Your task to perform on an android device: turn on translation in the chrome app Image 0: 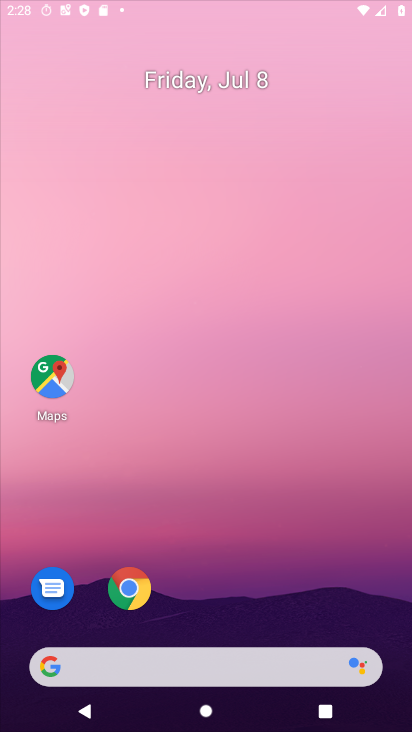
Step 0: press home button
Your task to perform on an android device: turn on translation in the chrome app Image 1: 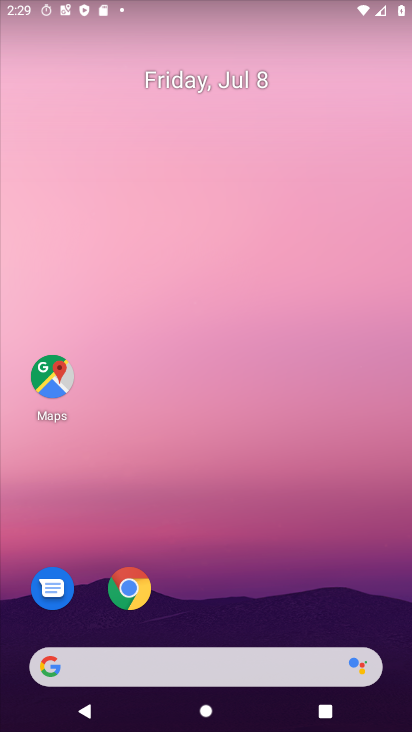
Step 1: drag from (227, 628) to (218, 133)
Your task to perform on an android device: turn on translation in the chrome app Image 2: 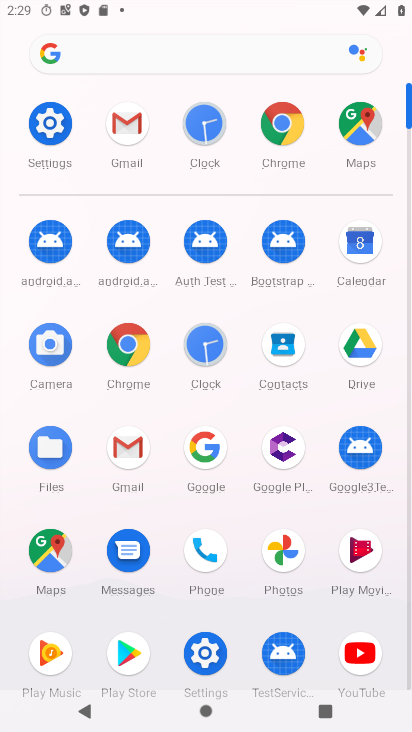
Step 2: click (284, 136)
Your task to perform on an android device: turn on translation in the chrome app Image 3: 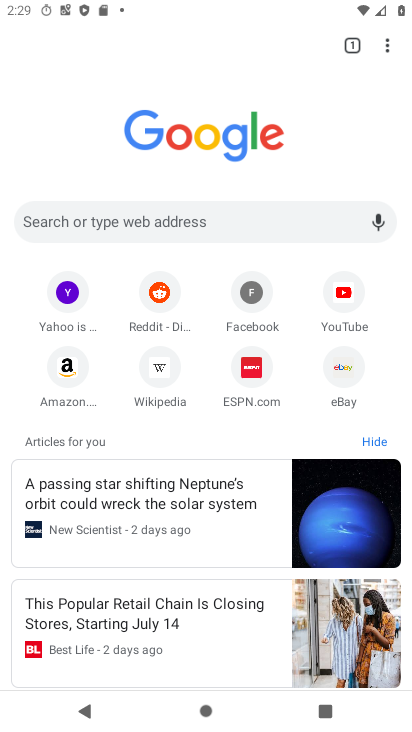
Step 3: drag from (389, 50) to (243, 382)
Your task to perform on an android device: turn on translation in the chrome app Image 4: 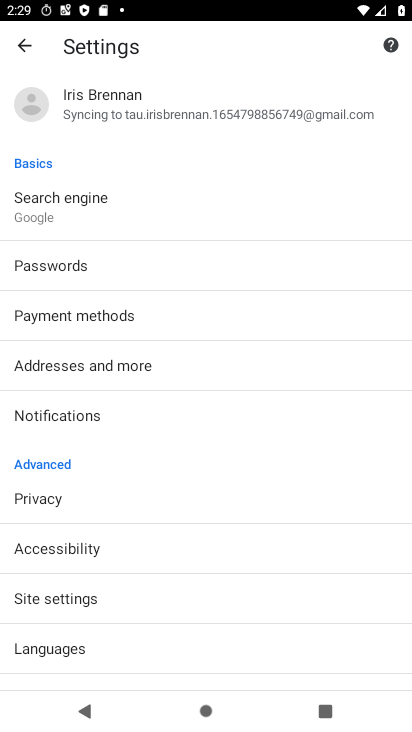
Step 4: click (49, 652)
Your task to perform on an android device: turn on translation in the chrome app Image 5: 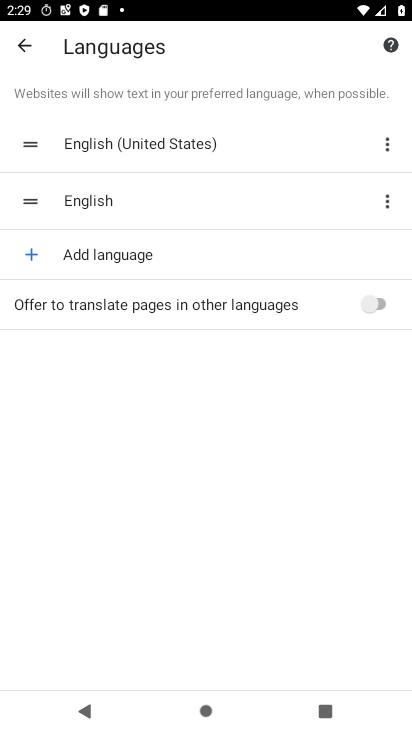
Step 5: click (371, 300)
Your task to perform on an android device: turn on translation in the chrome app Image 6: 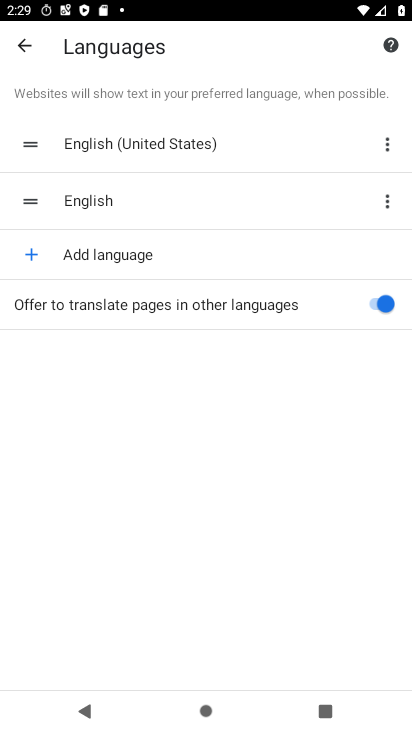
Step 6: task complete